Your task to perform on an android device: Is it going to rain tomorrow? Image 0: 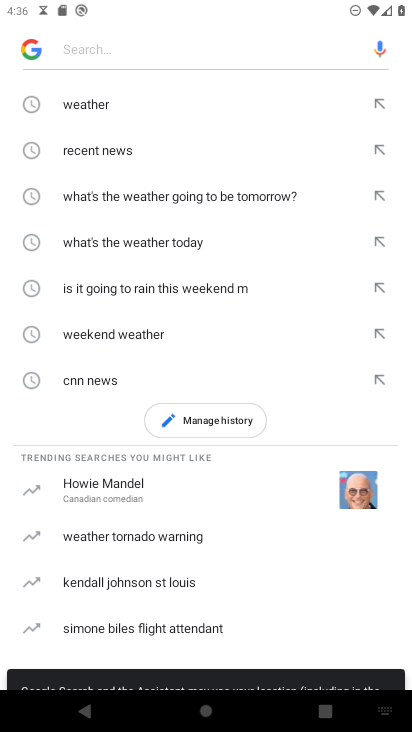
Step 0: press back button
Your task to perform on an android device: Is it going to rain tomorrow? Image 1: 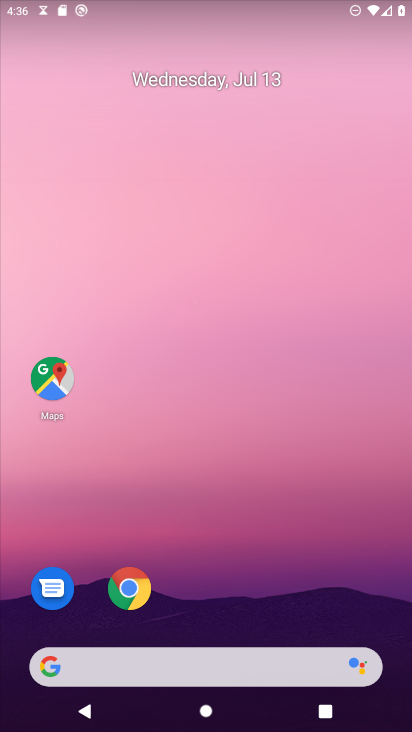
Step 1: drag from (245, 585) to (199, 113)
Your task to perform on an android device: Is it going to rain tomorrow? Image 2: 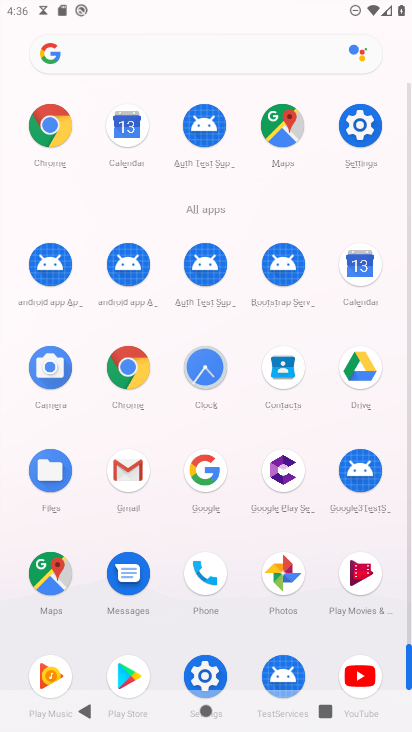
Step 2: click (51, 122)
Your task to perform on an android device: Is it going to rain tomorrow? Image 3: 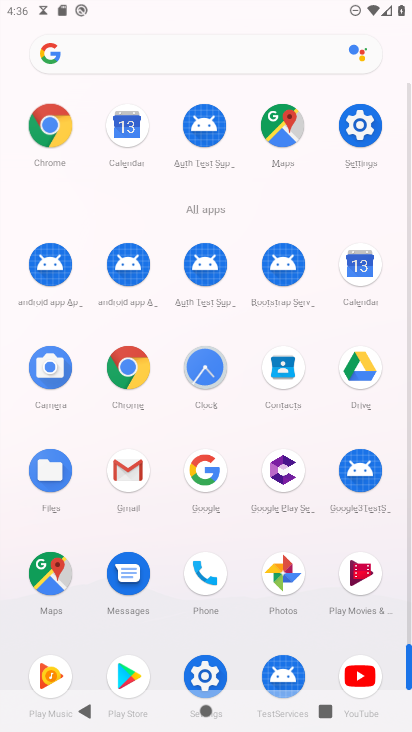
Step 3: click (51, 122)
Your task to perform on an android device: Is it going to rain tomorrow? Image 4: 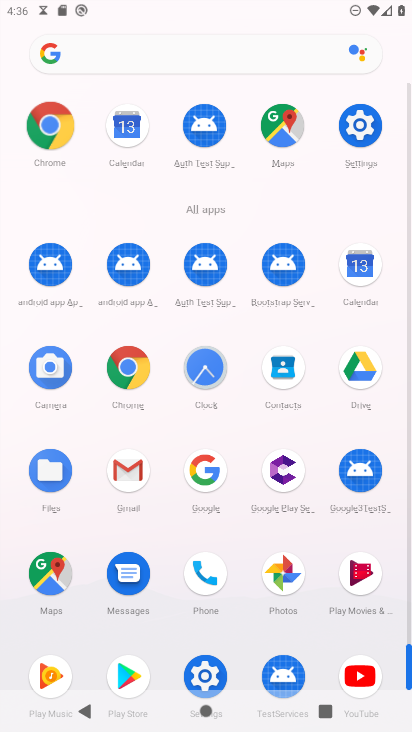
Step 4: click (51, 122)
Your task to perform on an android device: Is it going to rain tomorrow? Image 5: 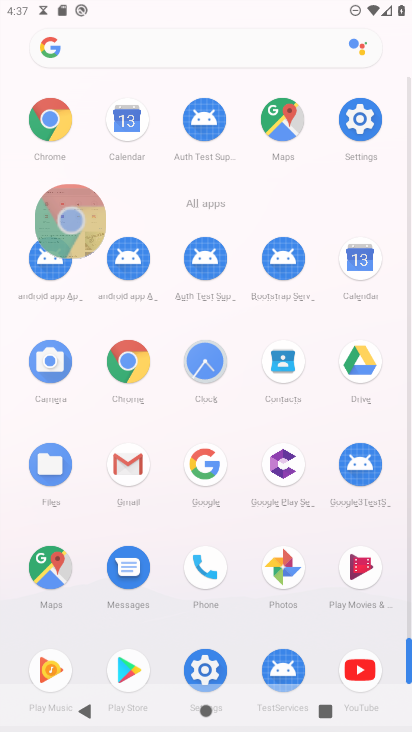
Step 5: click (52, 121)
Your task to perform on an android device: Is it going to rain tomorrow? Image 6: 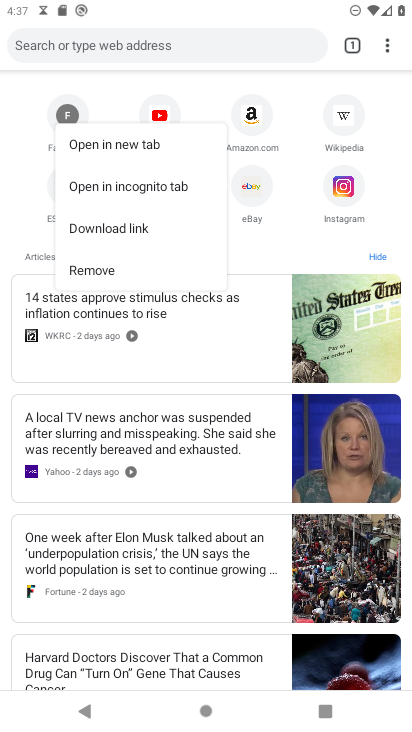
Step 6: click (129, 48)
Your task to perform on an android device: Is it going to rain tomorrow? Image 7: 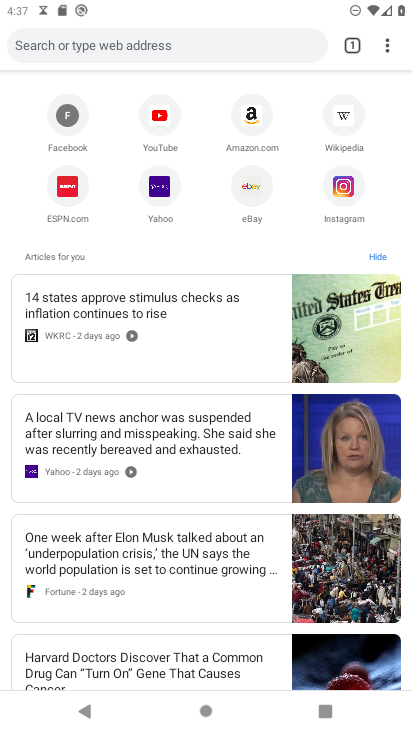
Step 7: click (129, 44)
Your task to perform on an android device: Is it going to rain tomorrow? Image 8: 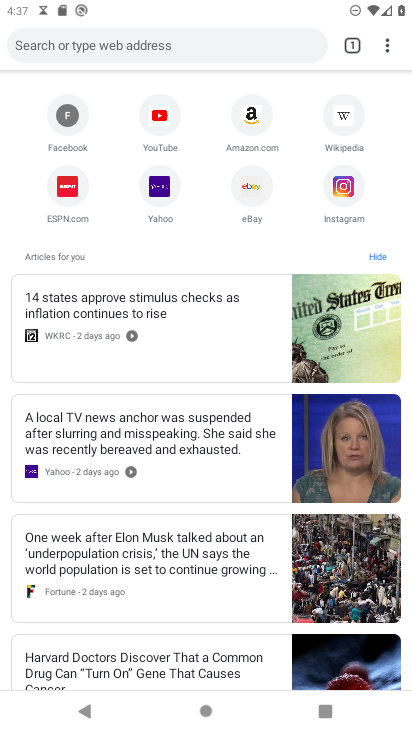
Step 8: click (131, 40)
Your task to perform on an android device: Is it going to rain tomorrow? Image 9: 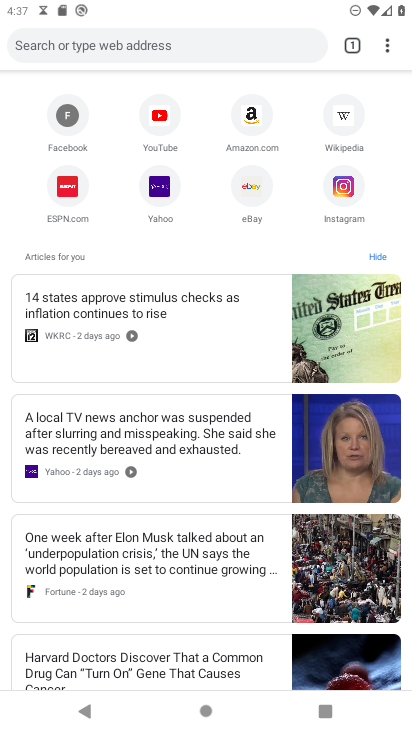
Step 9: click (131, 40)
Your task to perform on an android device: Is it going to rain tomorrow? Image 10: 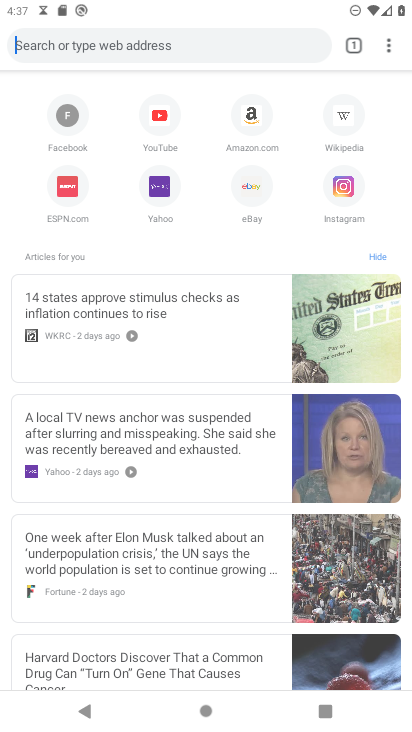
Step 10: click (131, 40)
Your task to perform on an android device: Is it going to rain tomorrow? Image 11: 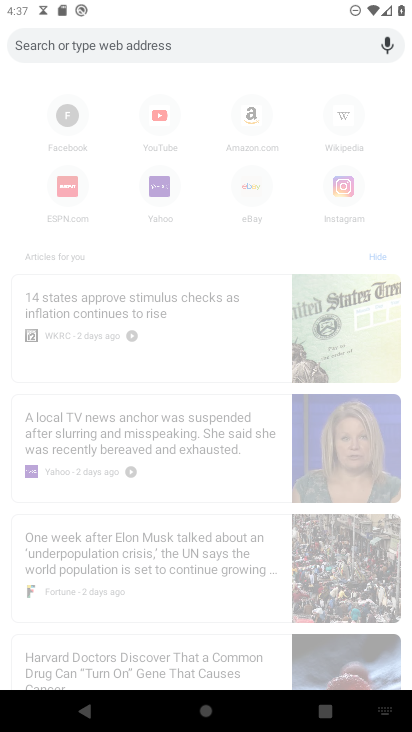
Step 11: click (97, 44)
Your task to perform on an android device: Is it going to rain tomorrow? Image 12: 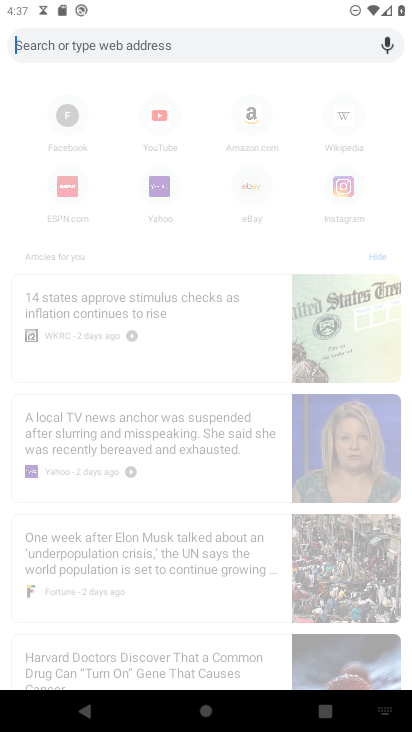
Step 12: type "is it going to rain tomorrow"
Your task to perform on an android device: Is it going to rain tomorrow? Image 13: 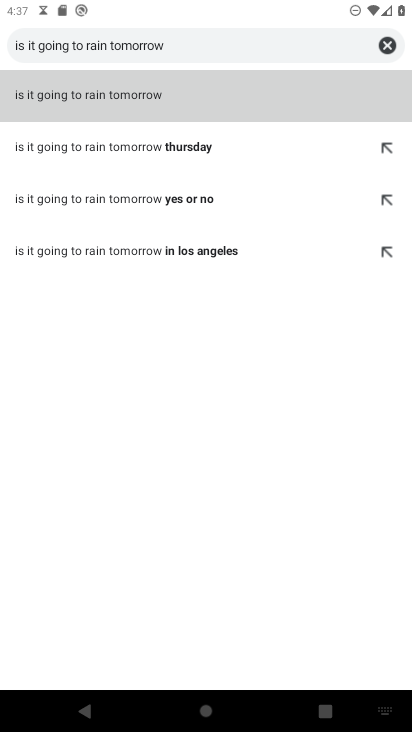
Step 13: click (149, 98)
Your task to perform on an android device: Is it going to rain tomorrow? Image 14: 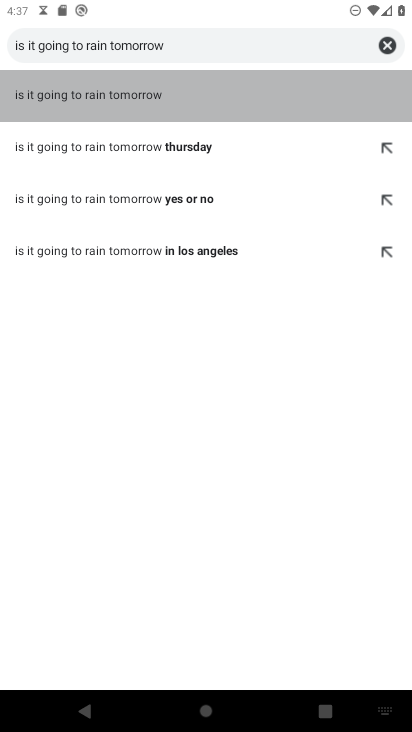
Step 14: click (139, 93)
Your task to perform on an android device: Is it going to rain tomorrow? Image 15: 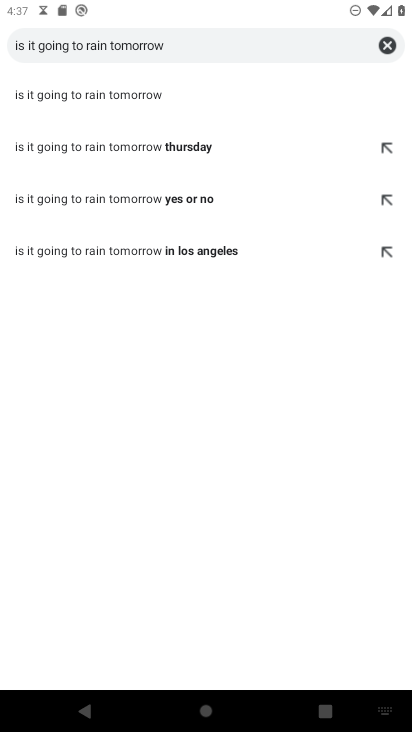
Step 15: click (139, 93)
Your task to perform on an android device: Is it going to rain tomorrow? Image 16: 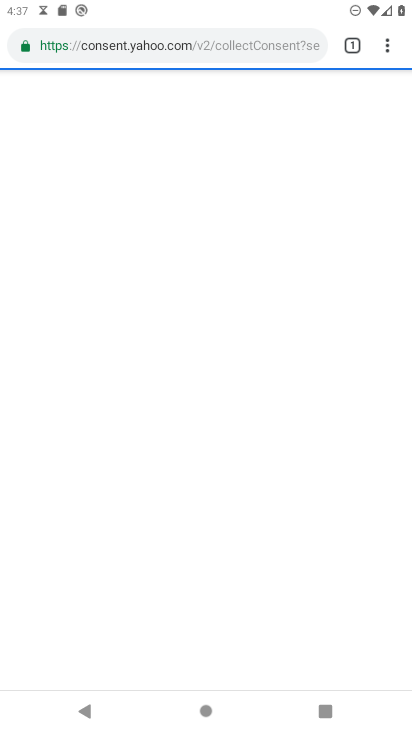
Step 16: task complete